Your task to perform on an android device: Go to ESPN.com Image 0: 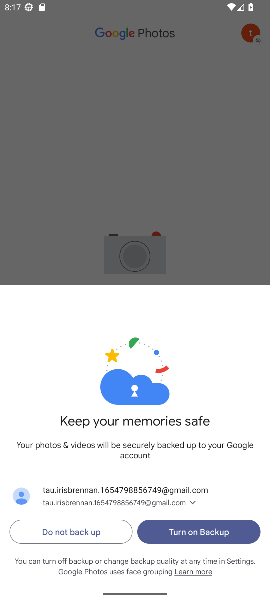
Step 0: press home button
Your task to perform on an android device: Go to ESPN.com Image 1: 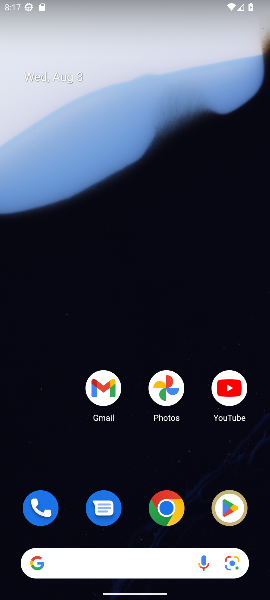
Step 1: drag from (145, 532) to (125, 16)
Your task to perform on an android device: Go to ESPN.com Image 2: 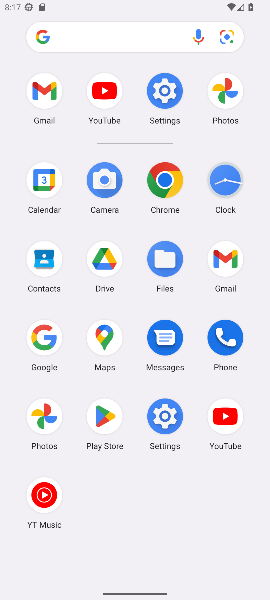
Step 2: click (160, 189)
Your task to perform on an android device: Go to ESPN.com Image 3: 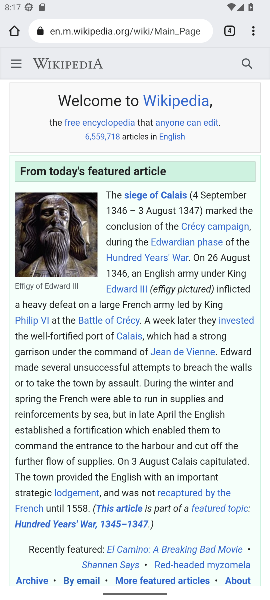
Step 3: click (223, 26)
Your task to perform on an android device: Go to ESPN.com Image 4: 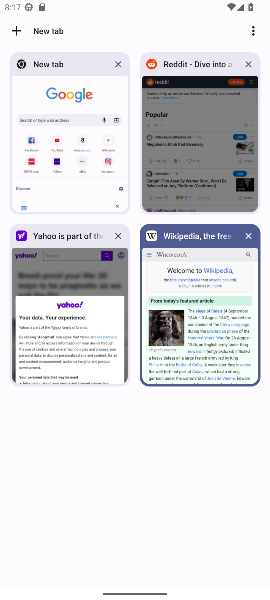
Step 4: click (12, 32)
Your task to perform on an android device: Go to ESPN.com Image 5: 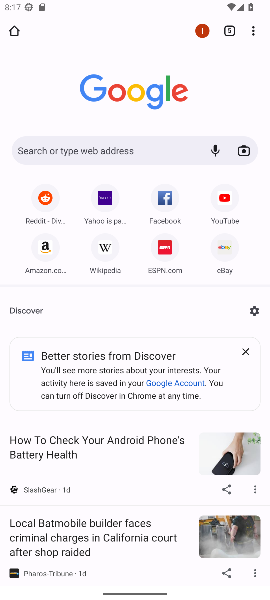
Step 5: click (169, 249)
Your task to perform on an android device: Go to ESPN.com Image 6: 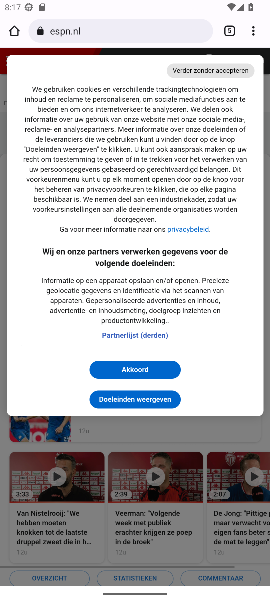
Step 6: task complete